Your task to perform on an android device: delete a single message in the gmail app Image 0: 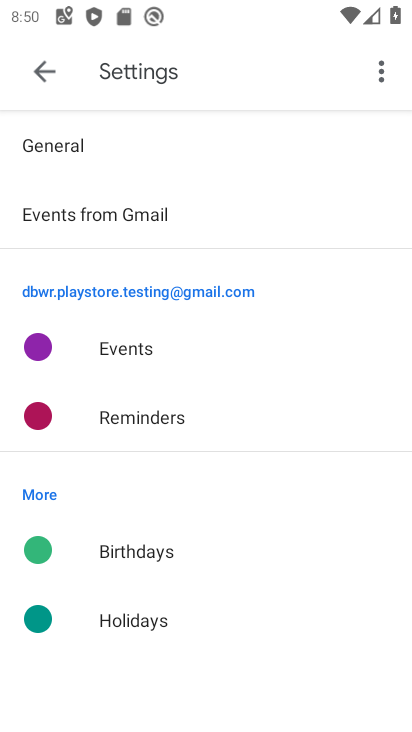
Step 0: press home button
Your task to perform on an android device: delete a single message in the gmail app Image 1: 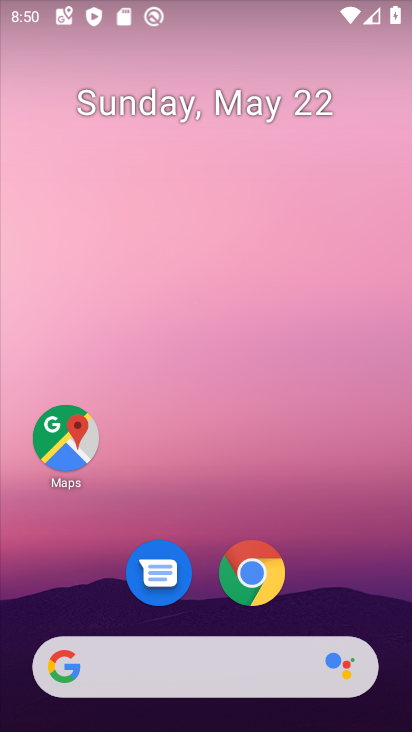
Step 1: drag from (191, 690) to (222, 151)
Your task to perform on an android device: delete a single message in the gmail app Image 2: 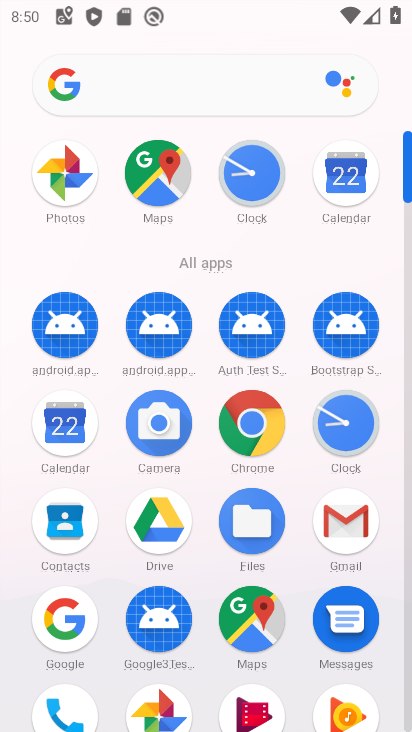
Step 2: click (359, 531)
Your task to perform on an android device: delete a single message in the gmail app Image 3: 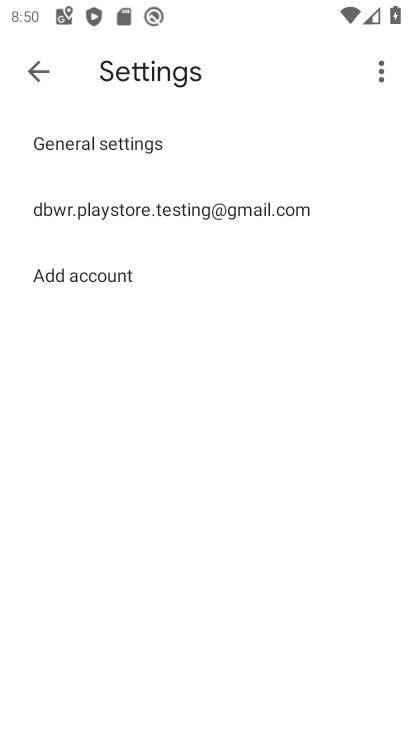
Step 3: press back button
Your task to perform on an android device: delete a single message in the gmail app Image 4: 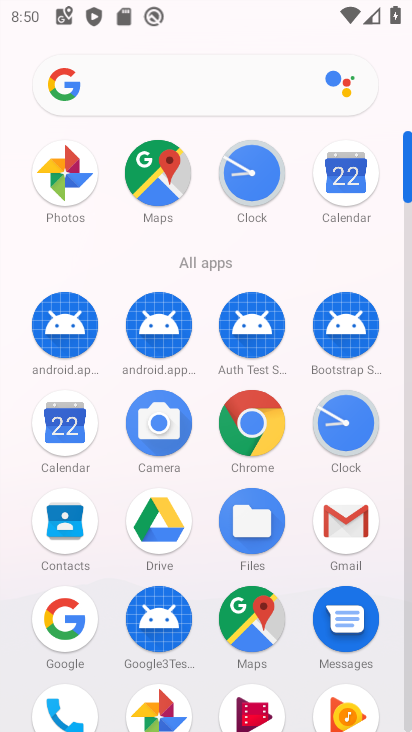
Step 4: click (354, 532)
Your task to perform on an android device: delete a single message in the gmail app Image 5: 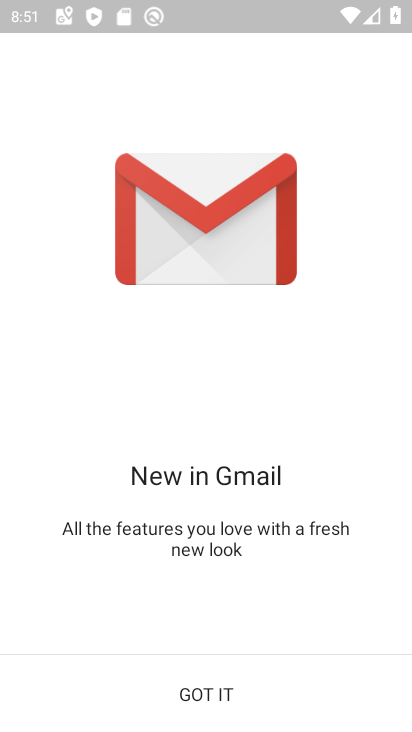
Step 5: click (262, 697)
Your task to perform on an android device: delete a single message in the gmail app Image 6: 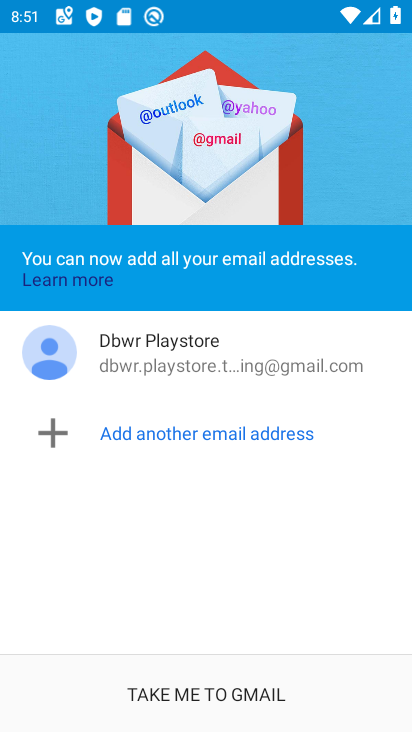
Step 6: click (319, 699)
Your task to perform on an android device: delete a single message in the gmail app Image 7: 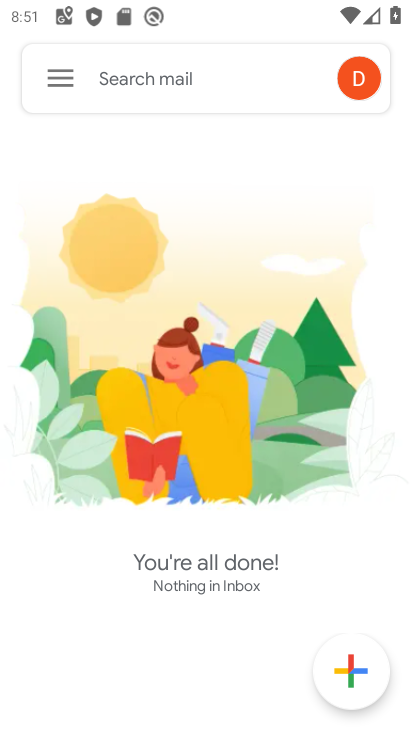
Step 7: task complete